Your task to perform on an android device: toggle data saver in the chrome app Image 0: 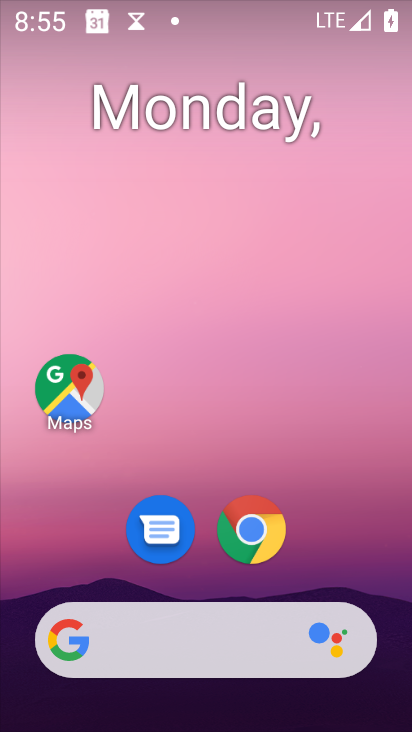
Step 0: press home button
Your task to perform on an android device: toggle data saver in the chrome app Image 1: 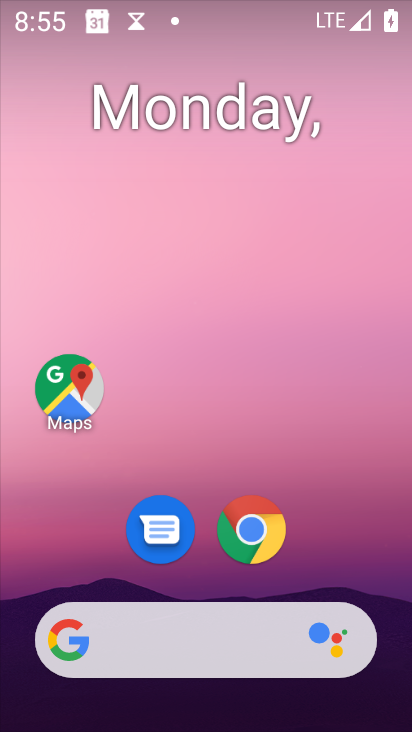
Step 1: click (251, 529)
Your task to perform on an android device: toggle data saver in the chrome app Image 2: 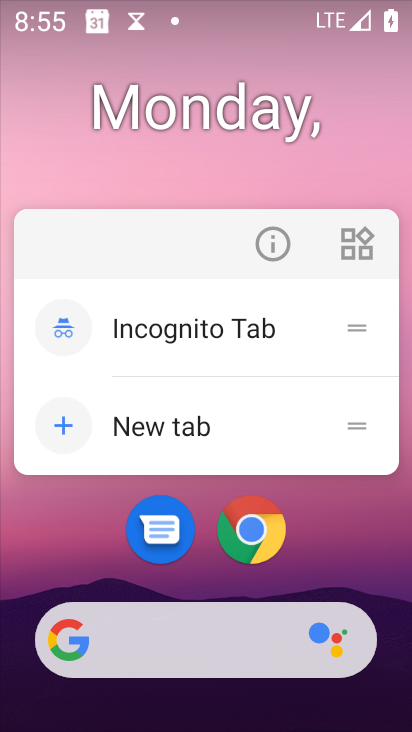
Step 2: click (279, 249)
Your task to perform on an android device: toggle data saver in the chrome app Image 3: 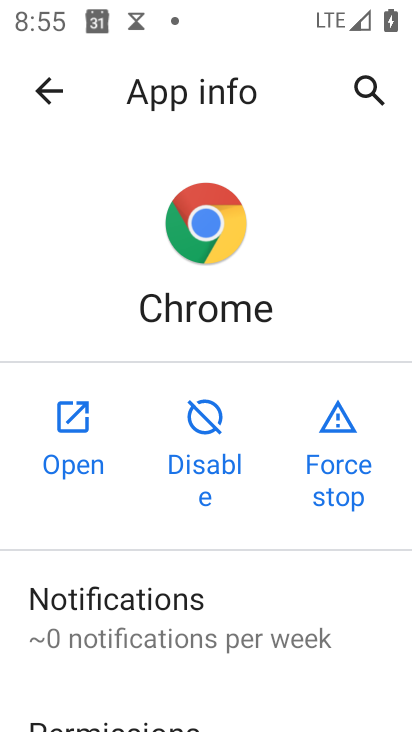
Step 3: click (68, 409)
Your task to perform on an android device: toggle data saver in the chrome app Image 4: 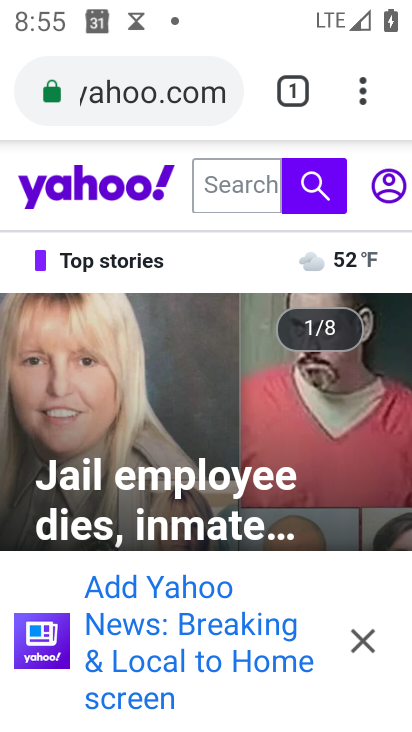
Step 4: click (359, 91)
Your task to perform on an android device: toggle data saver in the chrome app Image 5: 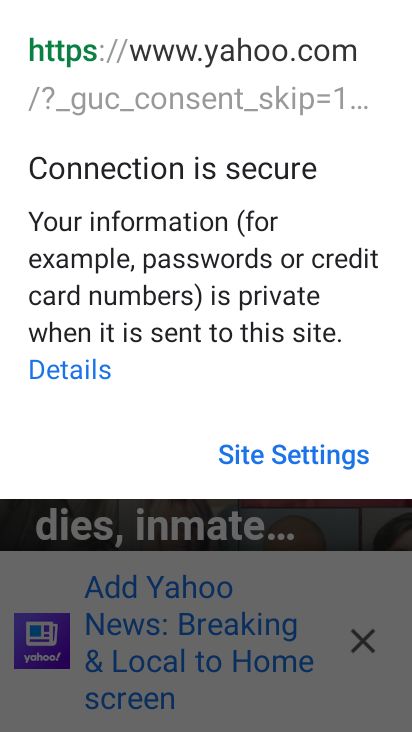
Step 5: press back button
Your task to perform on an android device: toggle data saver in the chrome app Image 6: 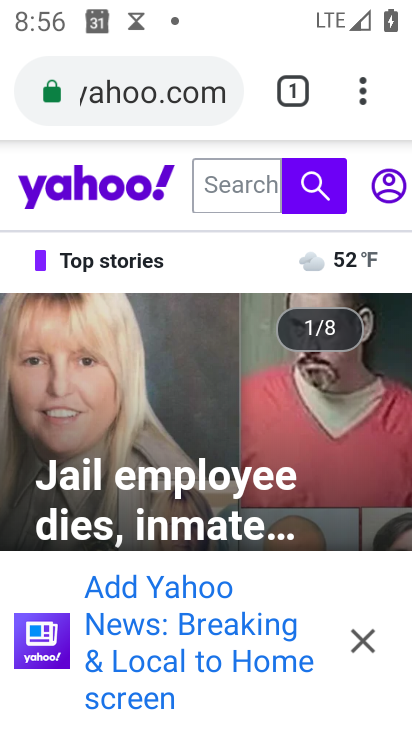
Step 6: click (363, 84)
Your task to perform on an android device: toggle data saver in the chrome app Image 7: 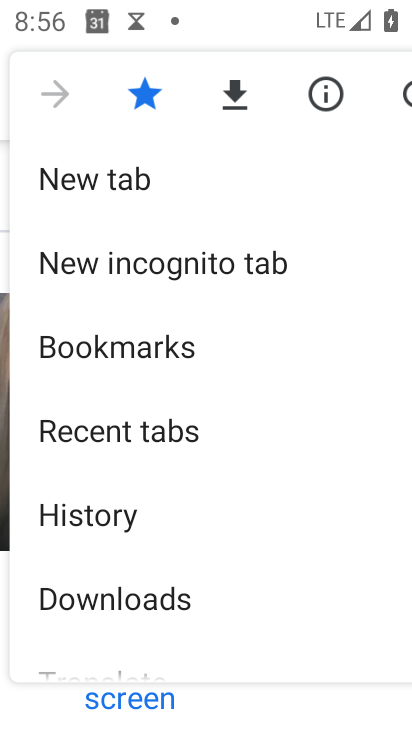
Step 7: drag from (93, 653) to (292, 246)
Your task to perform on an android device: toggle data saver in the chrome app Image 8: 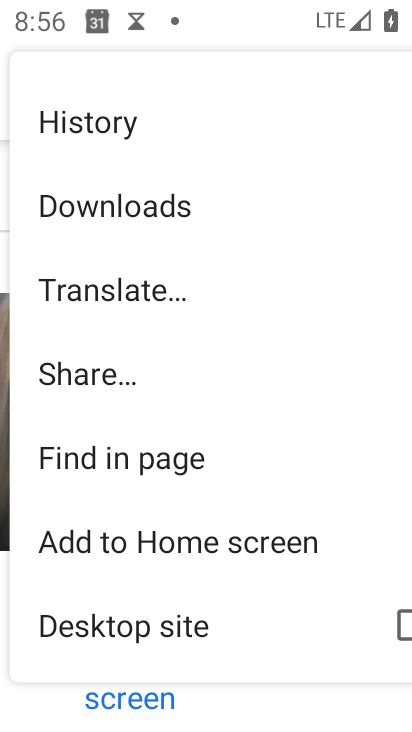
Step 8: drag from (114, 631) to (327, 186)
Your task to perform on an android device: toggle data saver in the chrome app Image 9: 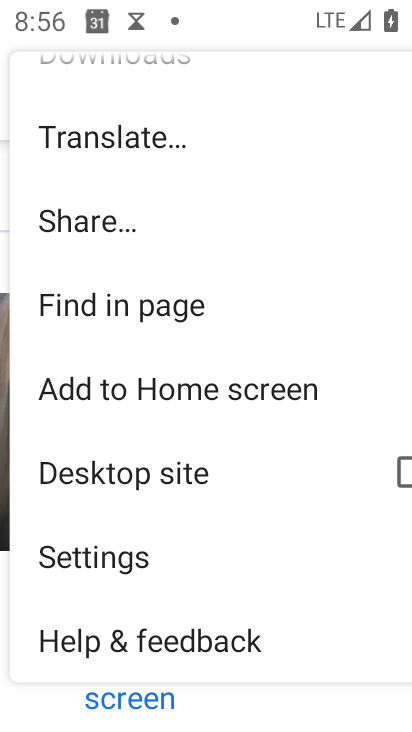
Step 9: click (144, 561)
Your task to perform on an android device: toggle data saver in the chrome app Image 10: 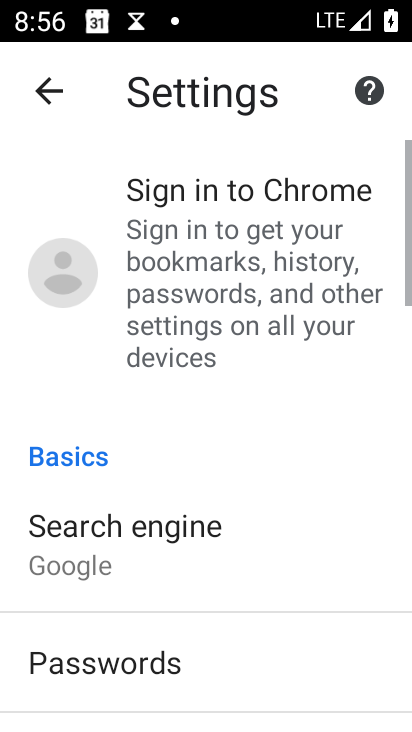
Step 10: drag from (132, 693) to (320, 237)
Your task to perform on an android device: toggle data saver in the chrome app Image 11: 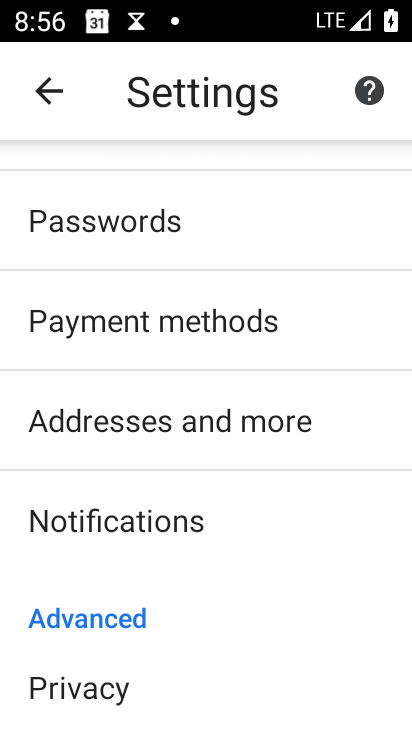
Step 11: drag from (154, 674) to (335, 230)
Your task to perform on an android device: toggle data saver in the chrome app Image 12: 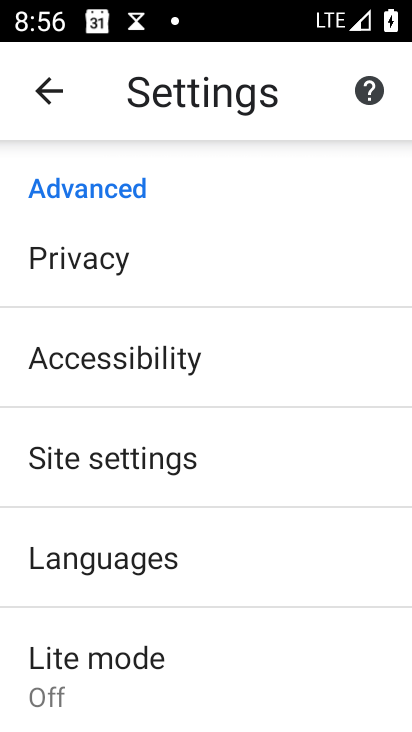
Step 12: drag from (95, 696) to (213, 383)
Your task to perform on an android device: toggle data saver in the chrome app Image 13: 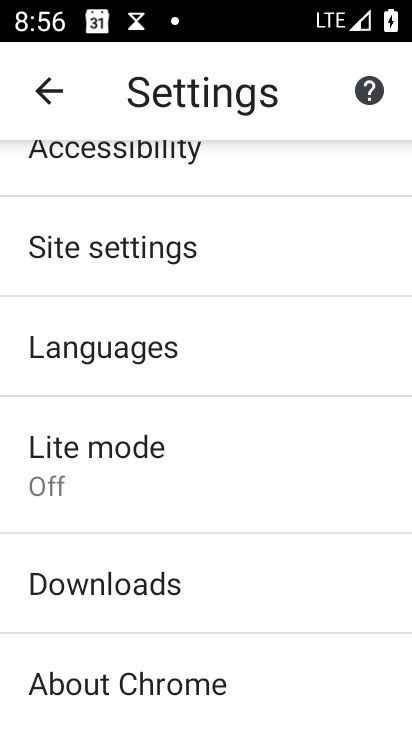
Step 13: click (110, 458)
Your task to perform on an android device: toggle data saver in the chrome app Image 14: 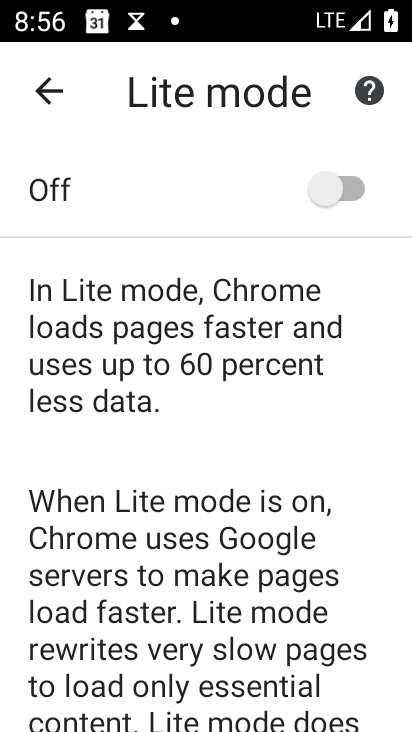
Step 14: click (312, 197)
Your task to perform on an android device: toggle data saver in the chrome app Image 15: 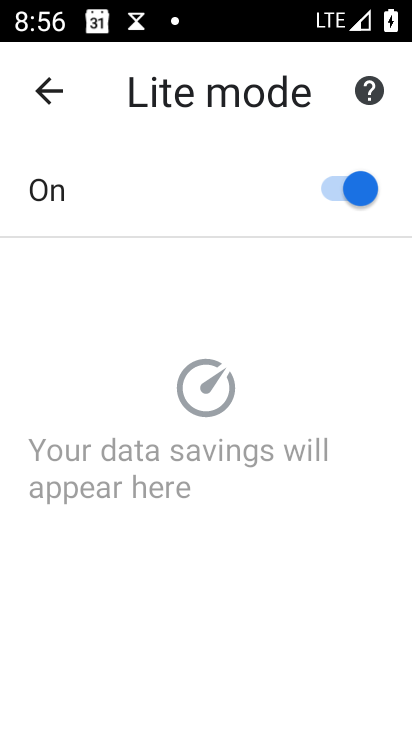
Step 15: task complete